Your task to perform on an android device: Play the last video I watched on Youtube Image 0: 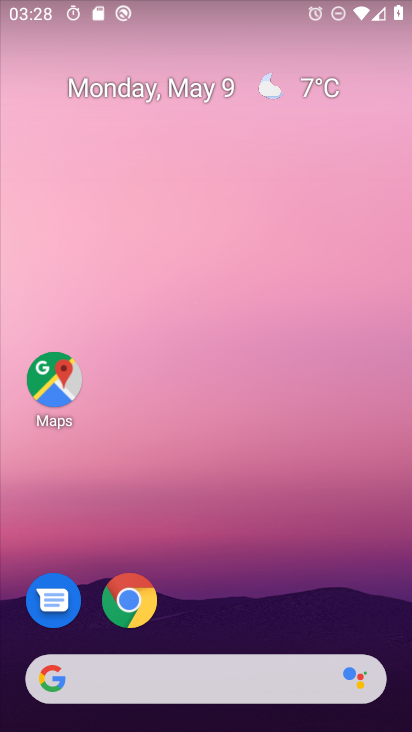
Step 0: drag from (198, 668) to (230, 104)
Your task to perform on an android device: Play the last video I watched on Youtube Image 1: 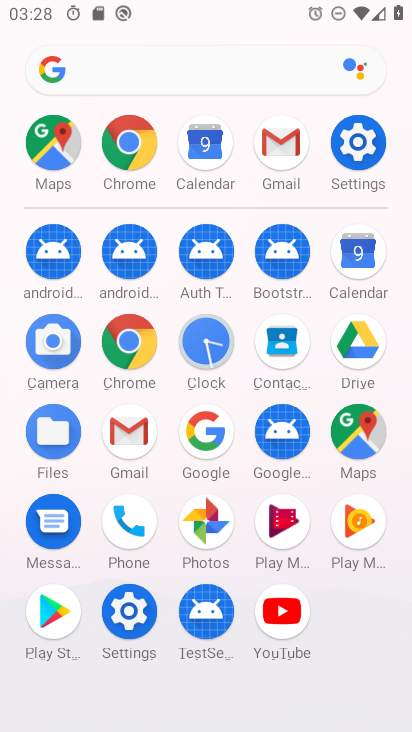
Step 1: click (288, 638)
Your task to perform on an android device: Play the last video I watched on Youtube Image 2: 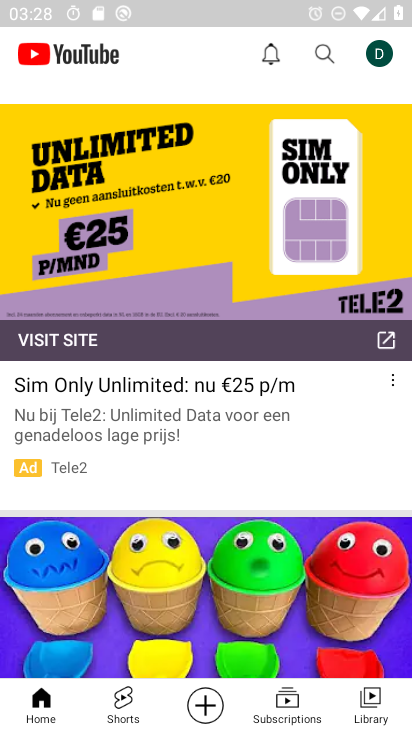
Step 2: click (377, 65)
Your task to perform on an android device: Play the last video I watched on Youtube Image 3: 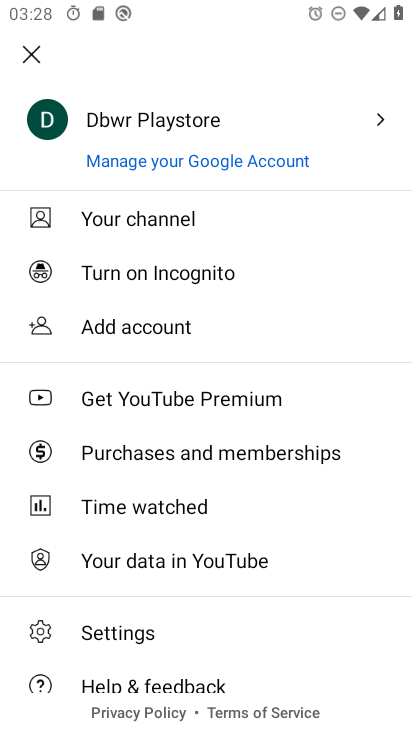
Step 3: press back button
Your task to perform on an android device: Play the last video I watched on Youtube Image 4: 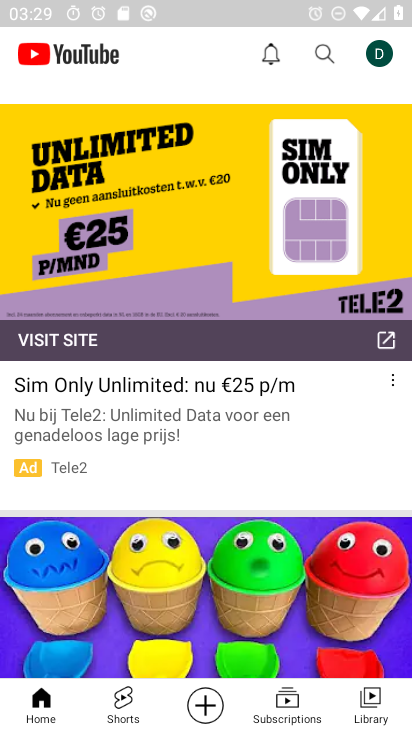
Step 4: click (373, 696)
Your task to perform on an android device: Play the last video I watched on Youtube Image 5: 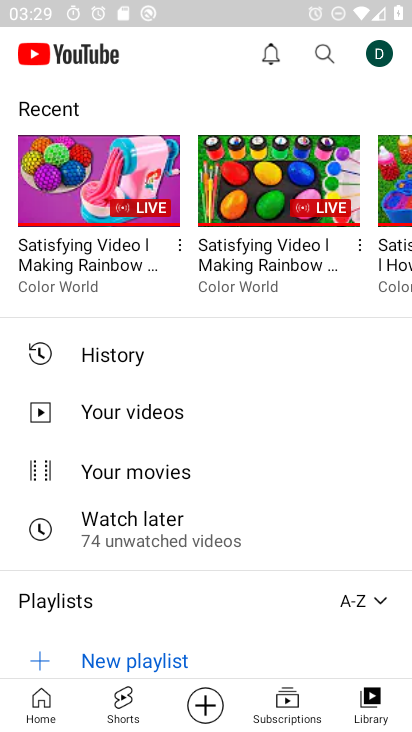
Step 5: click (131, 379)
Your task to perform on an android device: Play the last video I watched on Youtube Image 6: 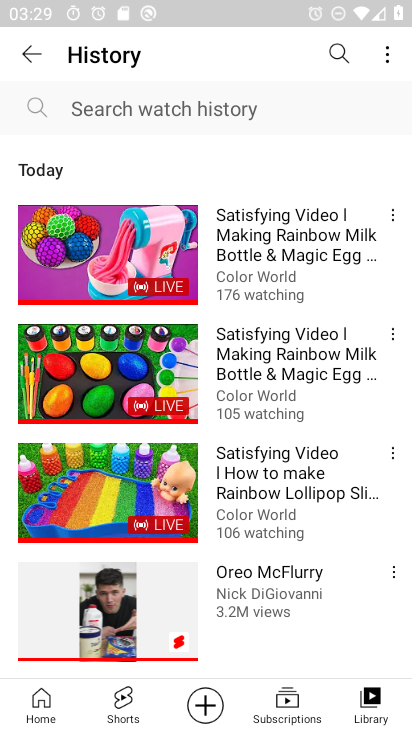
Step 6: click (245, 282)
Your task to perform on an android device: Play the last video I watched on Youtube Image 7: 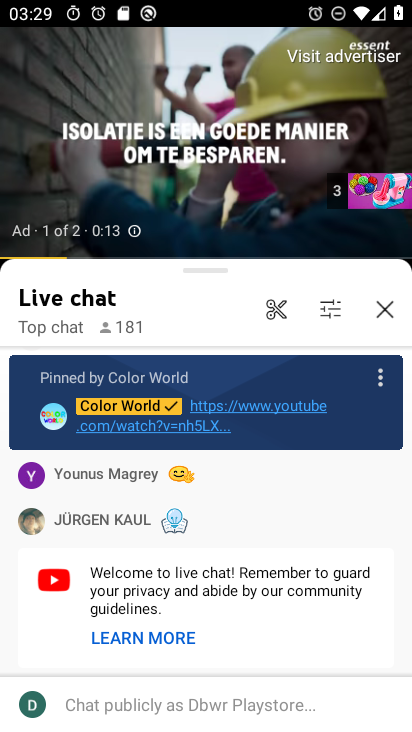
Step 7: task complete